Your task to perform on an android device: clear all cookies in the chrome app Image 0: 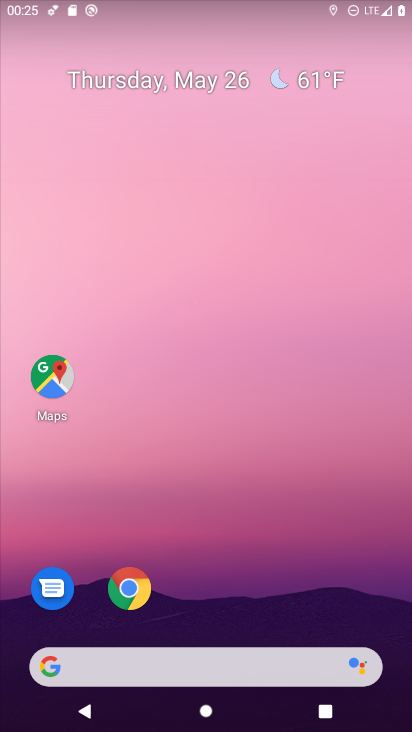
Step 0: click (139, 595)
Your task to perform on an android device: clear all cookies in the chrome app Image 1: 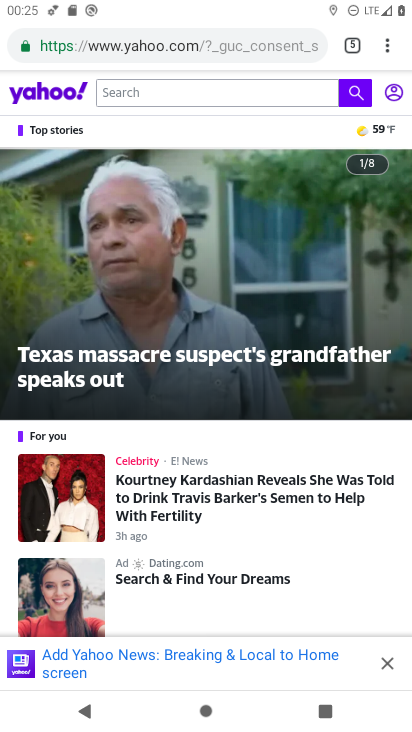
Step 1: click (384, 46)
Your task to perform on an android device: clear all cookies in the chrome app Image 2: 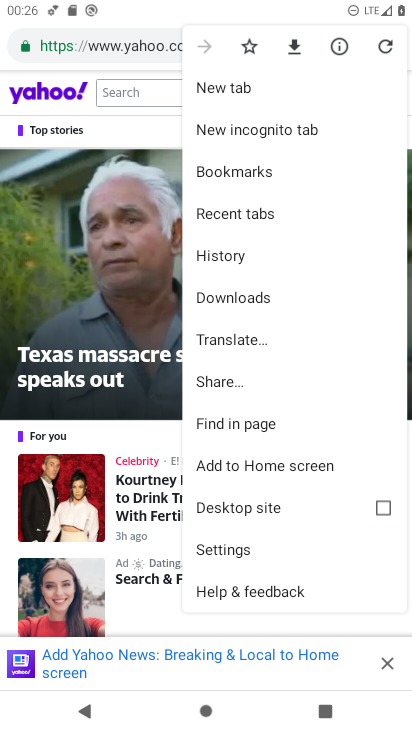
Step 2: click (242, 543)
Your task to perform on an android device: clear all cookies in the chrome app Image 3: 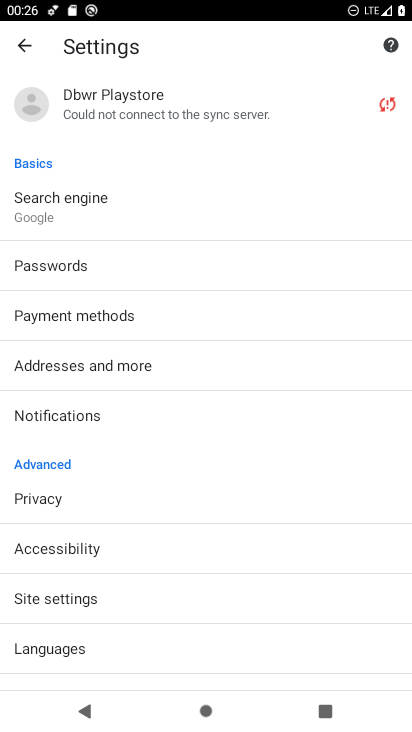
Step 3: click (33, 491)
Your task to perform on an android device: clear all cookies in the chrome app Image 4: 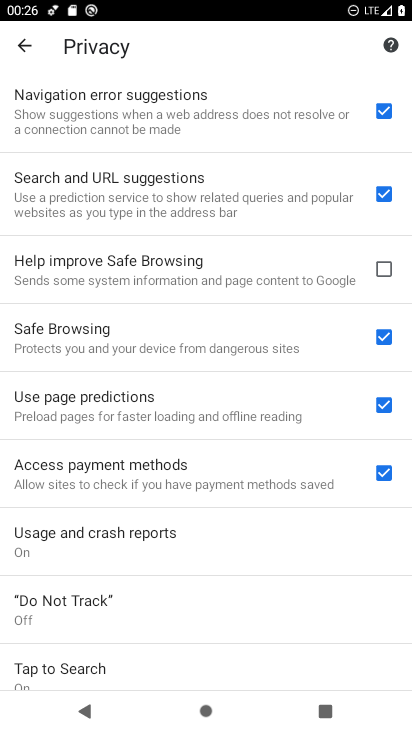
Step 4: drag from (174, 587) to (112, 204)
Your task to perform on an android device: clear all cookies in the chrome app Image 5: 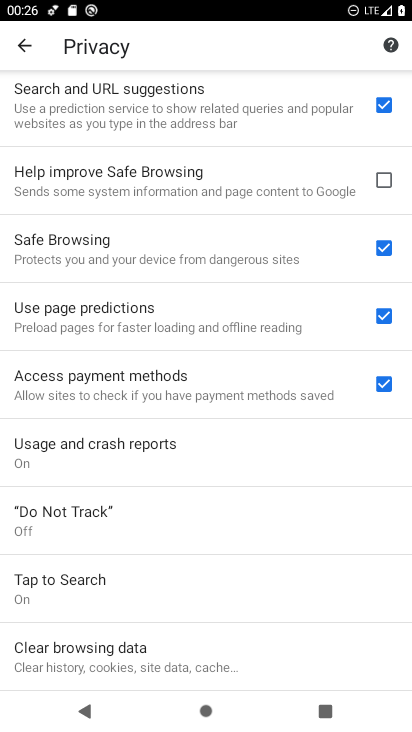
Step 5: click (98, 659)
Your task to perform on an android device: clear all cookies in the chrome app Image 6: 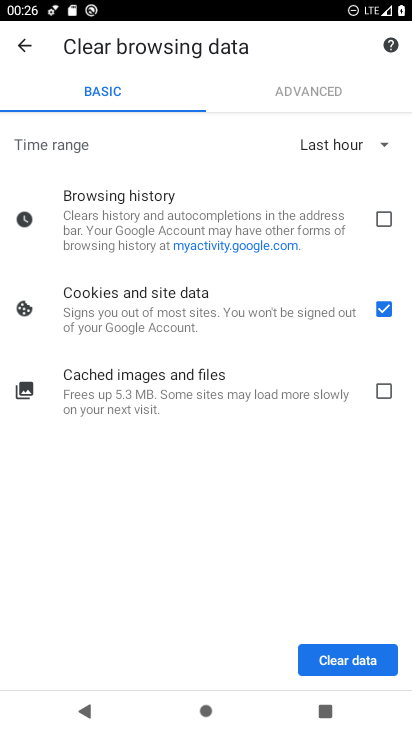
Step 6: click (381, 644)
Your task to perform on an android device: clear all cookies in the chrome app Image 7: 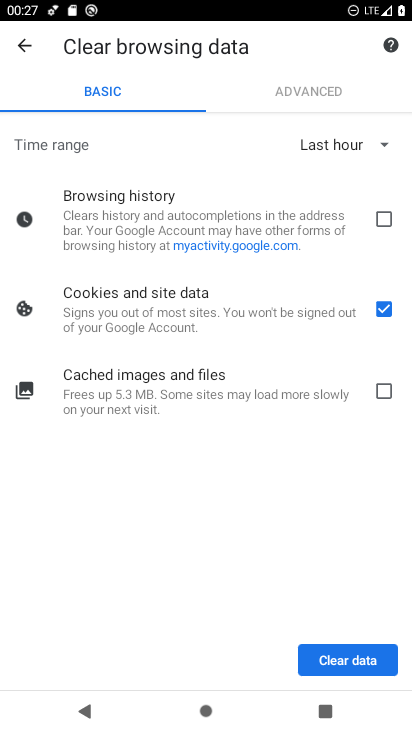
Step 7: click (344, 665)
Your task to perform on an android device: clear all cookies in the chrome app Image 8: 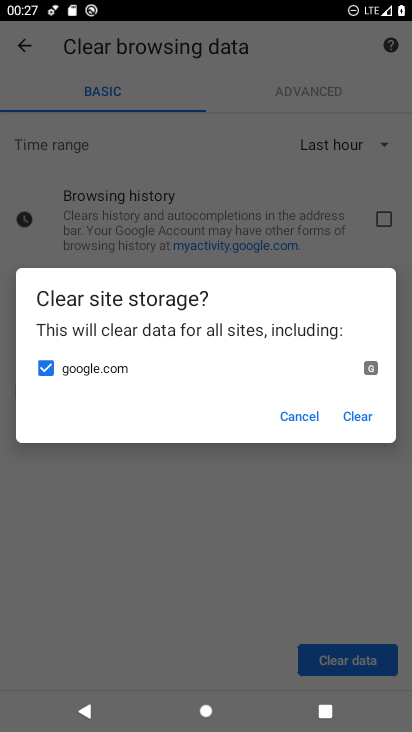
Step 8: click (359, 411)
Your task to perform on an android device: clear all cookies in the chrome app Image 9: 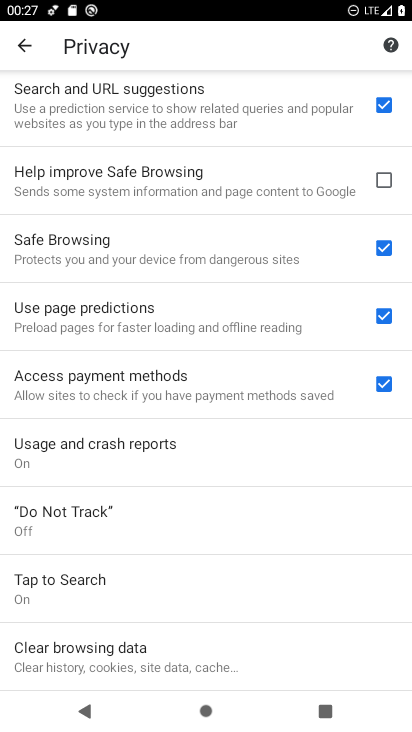
Step 9: task complete